Your task to perform on an android device: toggle sleep mode Image 0: 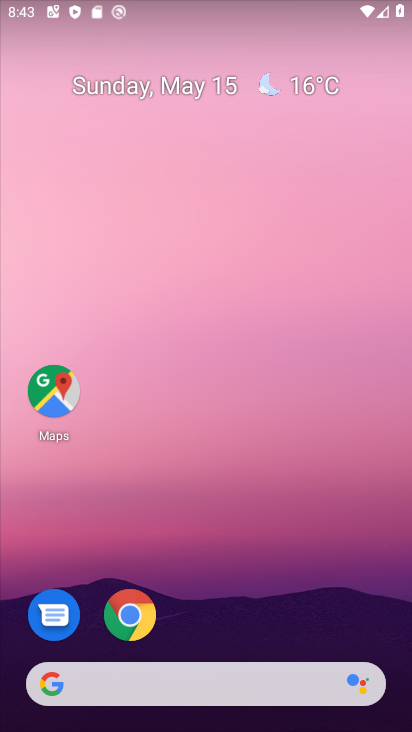
Step 0: drag from (302, 637) to (302, 70)
Your task to perform on an android device: toggle sleep mode Image 1: 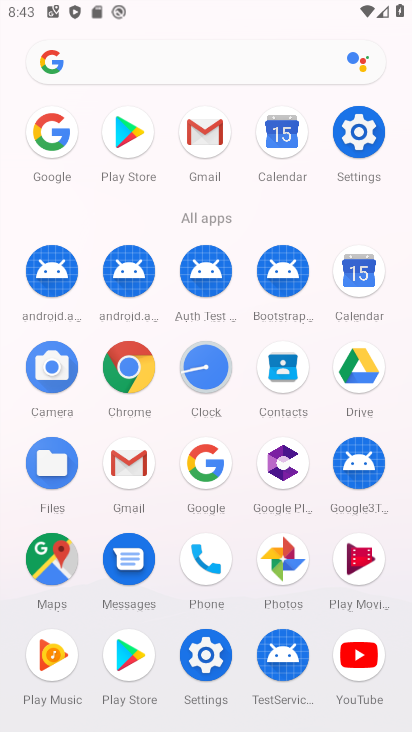
Step 1: click (209, 647)
Your task to perform on an android device: toggle sleep mode Image 2: 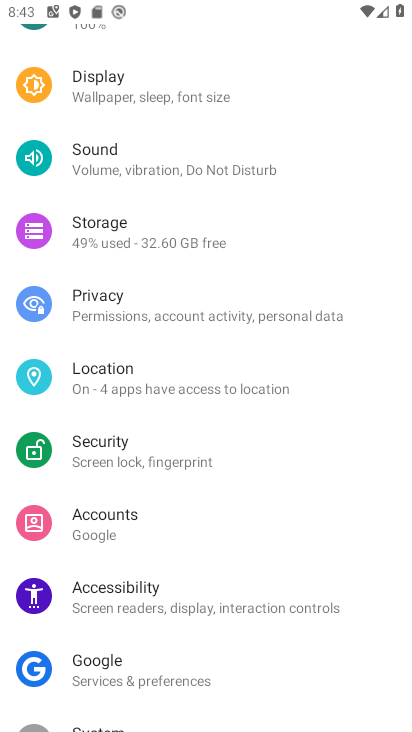
Step 2: click (172, 94)
Your task to perform on an android device: toggle sleep mode Image 3: 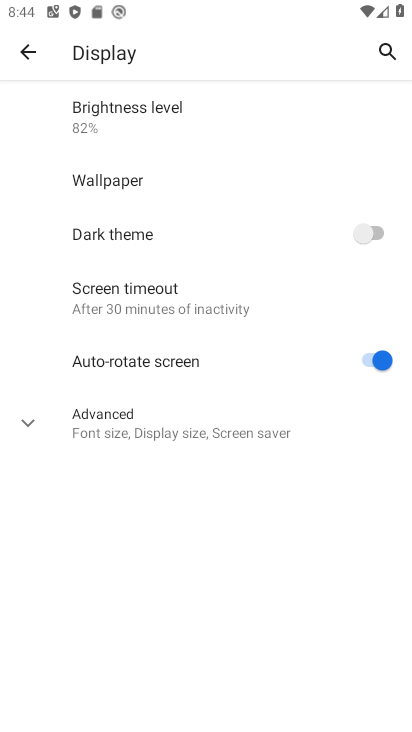
Step 3: click (243, 434)
Your task to perform on an android device: toggle sleep mode Image 4: 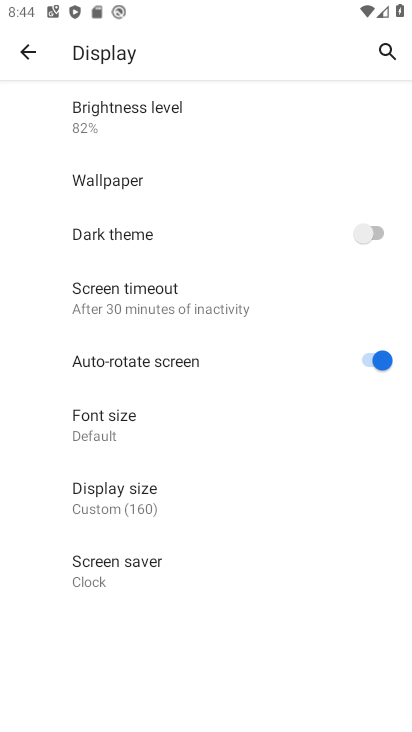
Step 4: task complete